Your task to perform on an android device: Show me popular games on the Play Store Image 0: 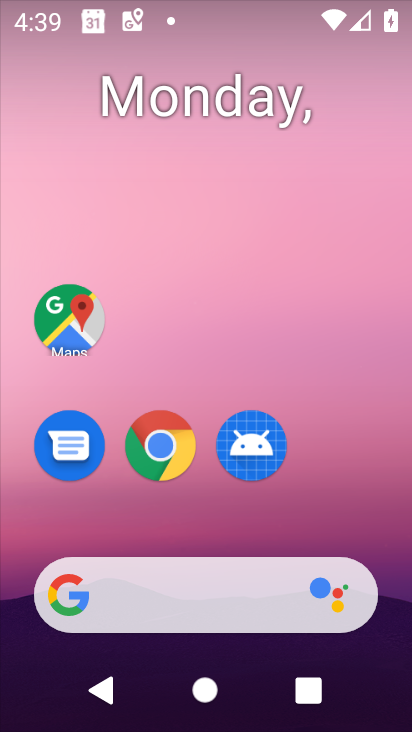
Step 0: drag from (266, 516) to (308, 49)
Your task to perform on an android device: Show me popular games on the Play Store Image 1: 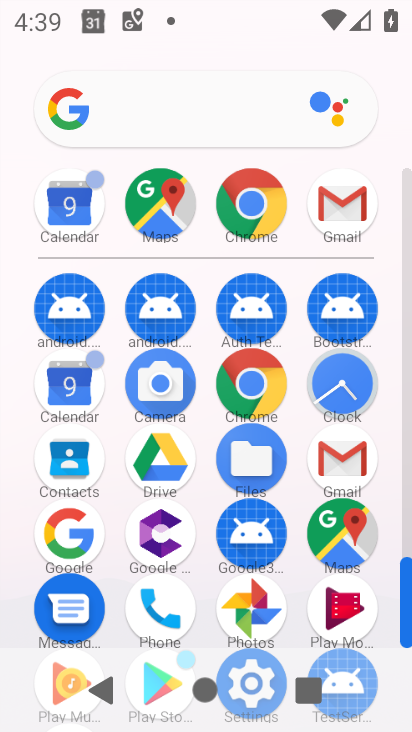
Step 1: click (148, 693)
Your task to perform on an android device: Show me popular games on the Play Store Image 2: 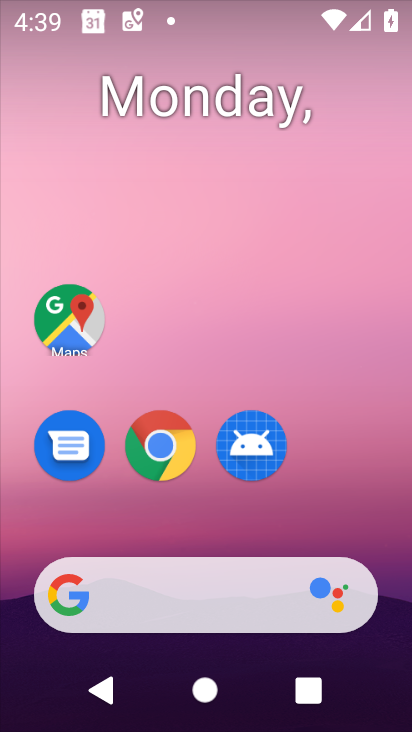
Step 2: drag from (220, 491) to (275, 82)
Your task to perform on an android device: Show me popular games on the Play Store Image 3: 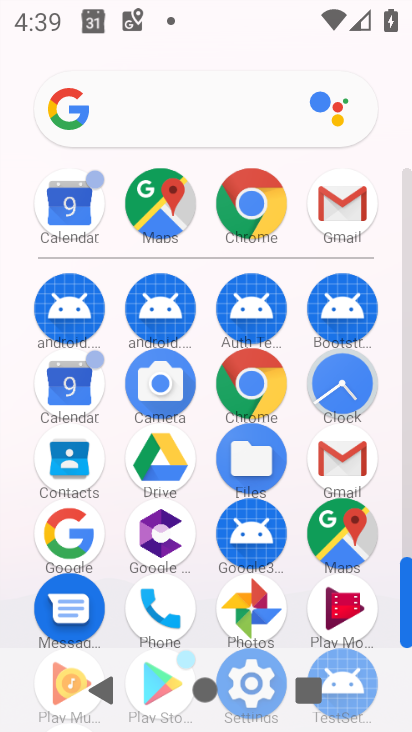
Step 3: click (404, 578)
Your task to perform on an android device: Show me popular games on the Play Store Image 4: 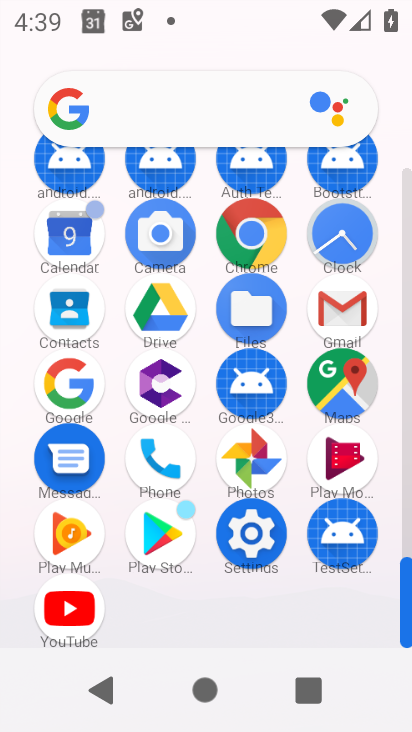
Step 4: click (172, 526)
Your task to perform on an android device: Show me popular games on the Play Store Image 5: 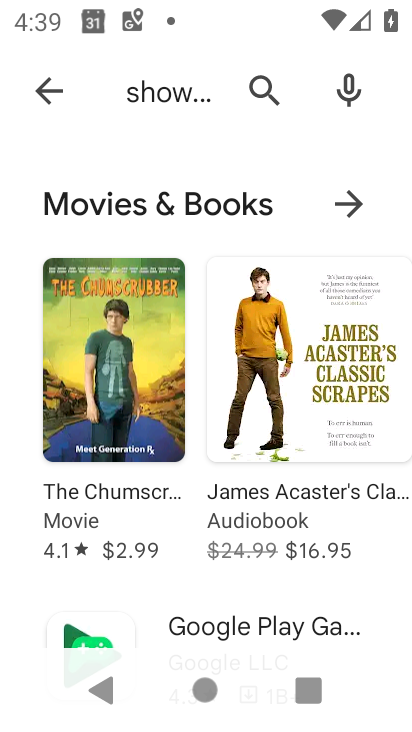
Step 5: click (268, 97)
Your task to perform on an android device: Show me popular games on the Play Store Image 6: 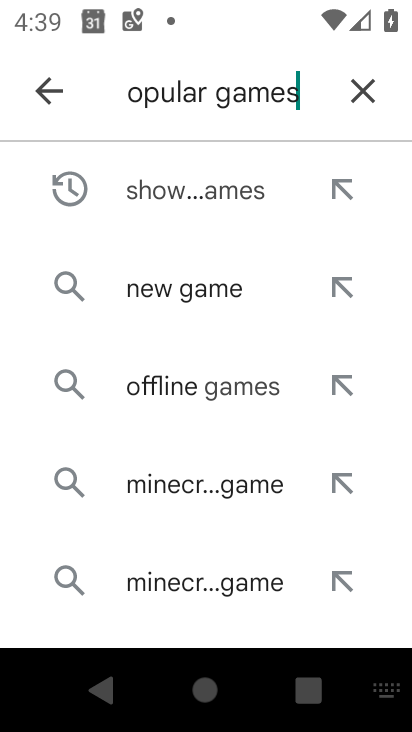
Step 6: task complete